Your task to perform on an android device: Go to display settings Image 0: 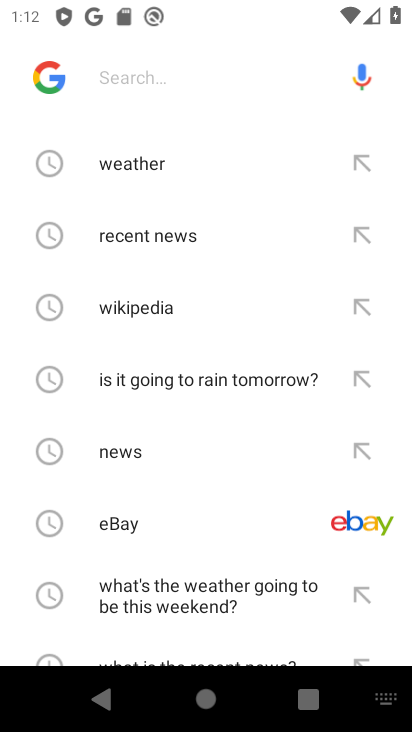
Step 0: press home button
Your task to perform on an android device: Go to display settings Image 1: 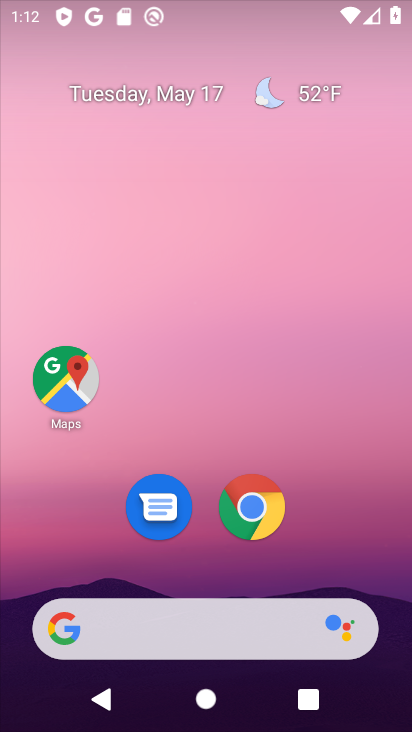
Step 1: drag from (207, 550) to (233, 7)
Your task to perform on an android device: Go to display settings Image 2: 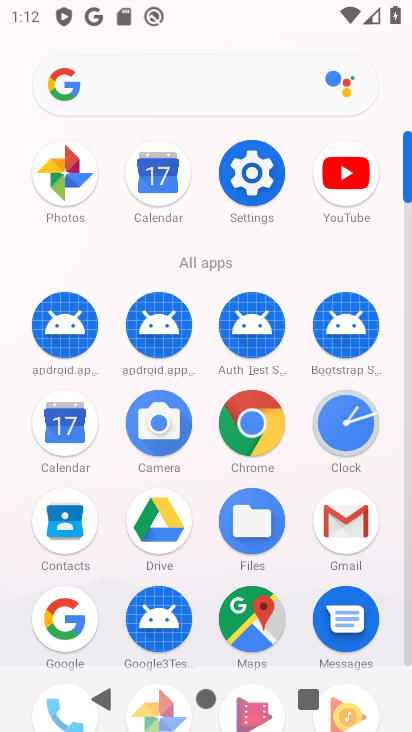
Step 2: click (252, 154)
Your task to perform on an android device: Go to display settings Image 3: 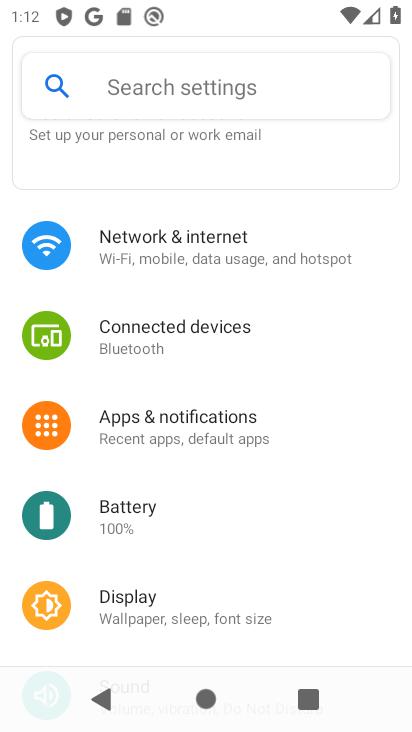
Step 3: drag from (174, 559) to (164, 364)
Your task to perform on an android device: Go to display settings Image 4: 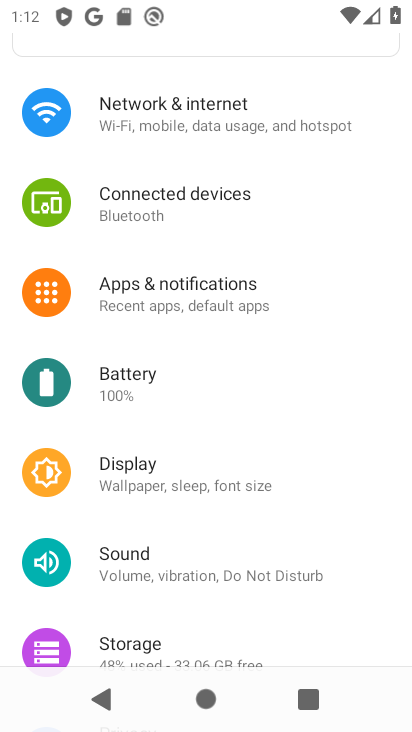
Step 4: click (147, 474)
Your task to perform on an android device: Go to display settings Image 5: 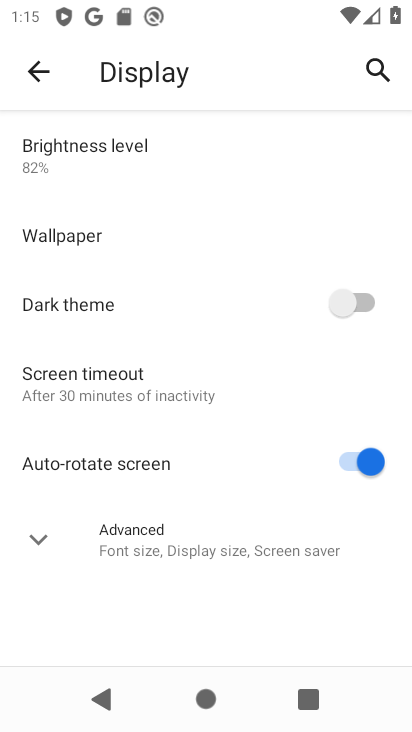
Step 5: task complete